Your task to perform on an android device: open wifi settings Image 0: 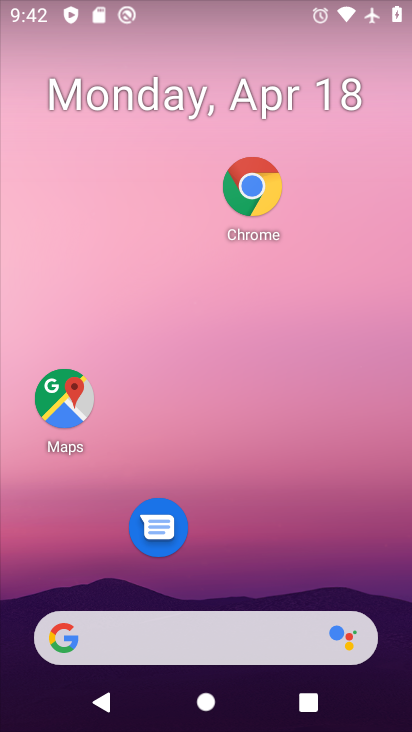
Step 0: drag from (230, 432) to (228, 114)
Your task to perform on an android device: open wifi settings Image 1: 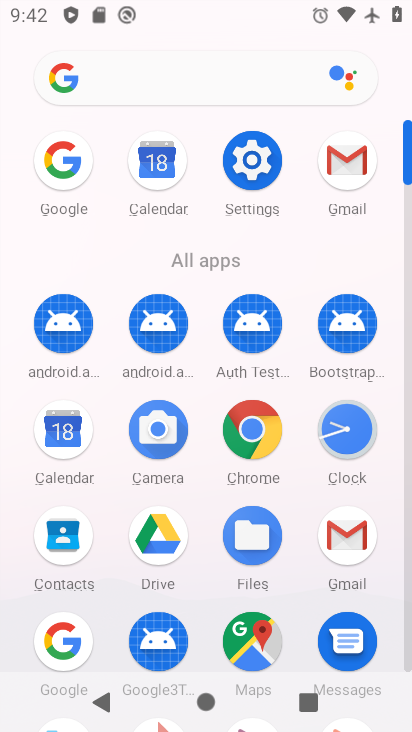
Step 1: click (241, 162)
Your task to perform on an android device: open wifi settings Image 2: 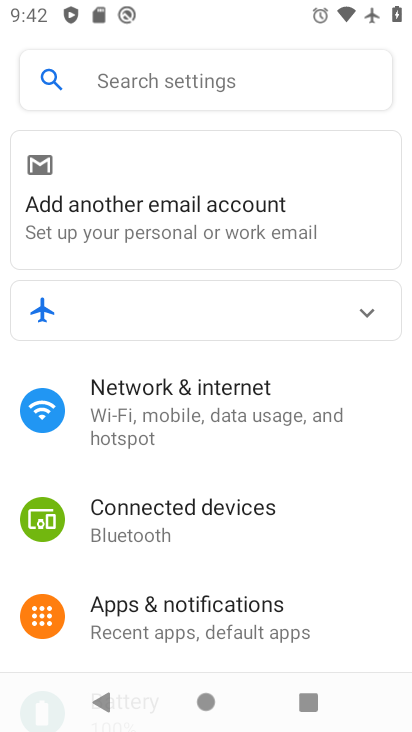
Step 2: drag from (331, 580) to (280, 136)
Your task to perform on an android device: open wifi settings Image 3: 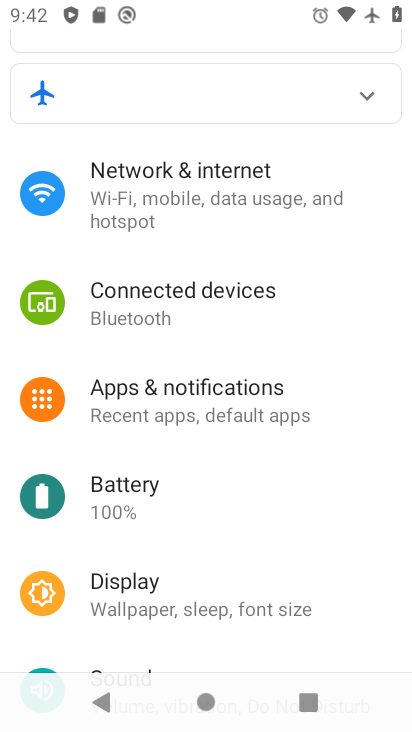
Step 3: click (184, 199)
Your task to perform on an android device: open wifi settings Image 4: 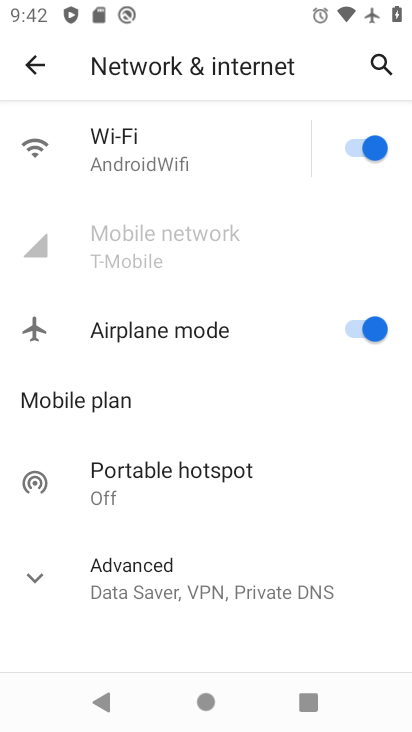
Step 4: click (127, 163)
Your task to perform on an android device: open wifi settings Image 5: 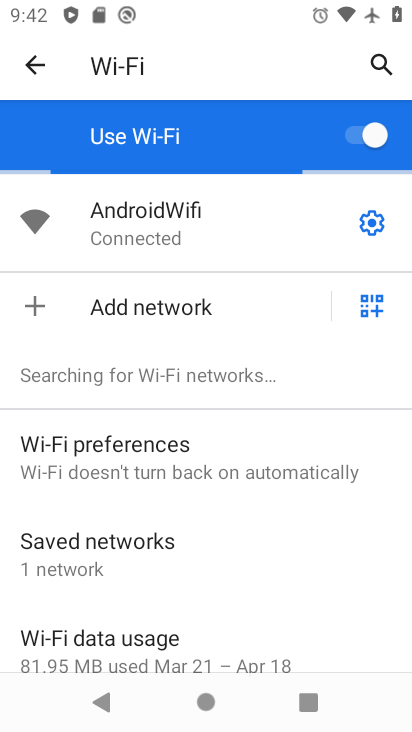
Step 5: task complete